Your task to perform on an android device: Open accessibility settings Image 0: 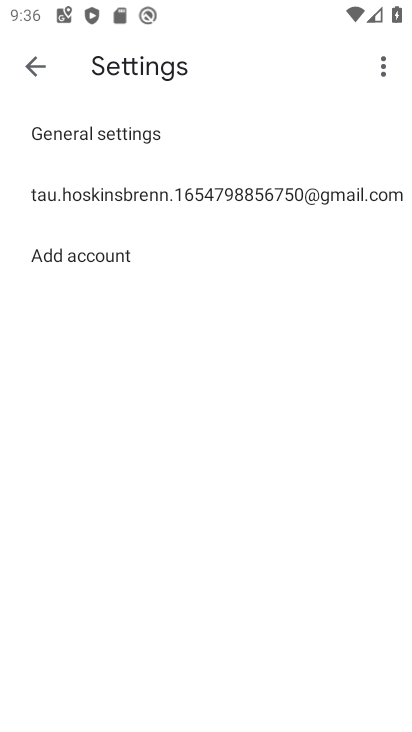
Step 0: press home button
Your task to perform on an android device: Open accessibility settings Image 1: 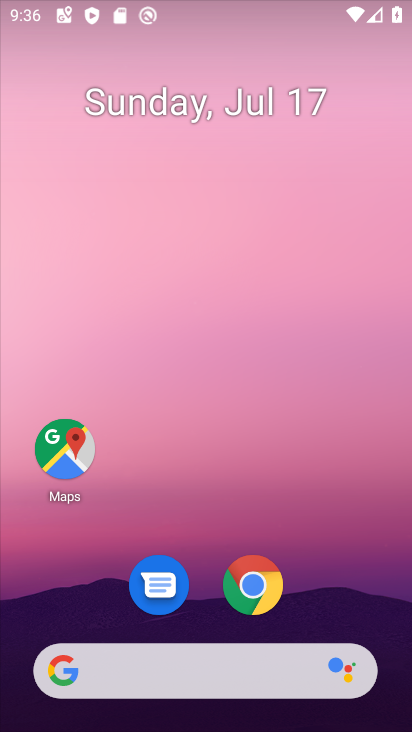
Step 1: drag from (323, 605) to (248, 21)
Your task to perform on an android device: Open accessibility settings Image 2: 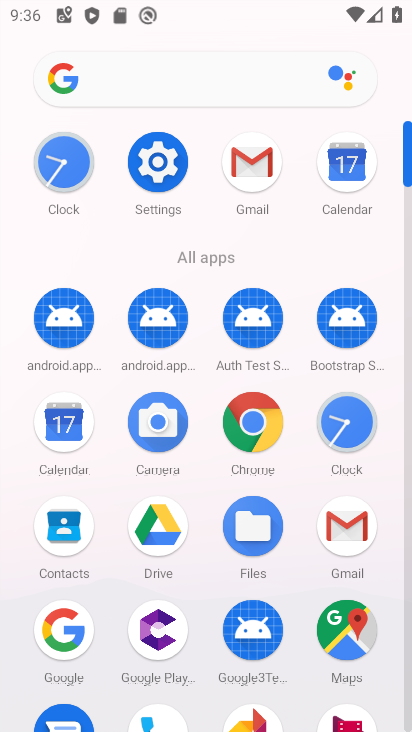
Step 2: click (167, 167)
Your task to perform on an android device: Open accessibility settings Image 3: 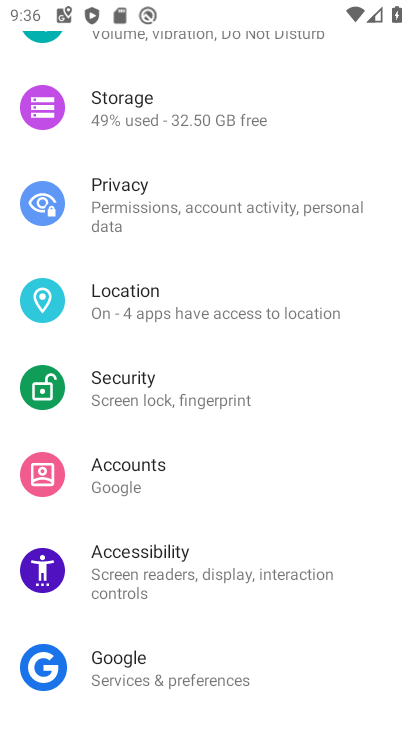
Step 3: click (266, 565)
Your task to perform on an android device: Open accessibility settings Image 4: 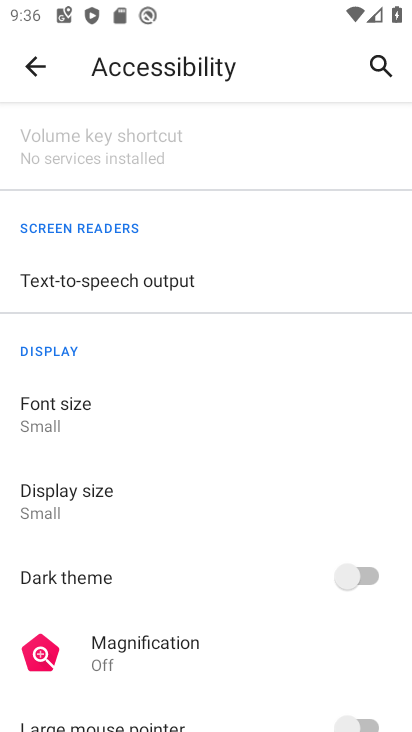
Step 4: task complete